Your task to perform on an android device: Set the phone to "Do not disturb". Image 0: 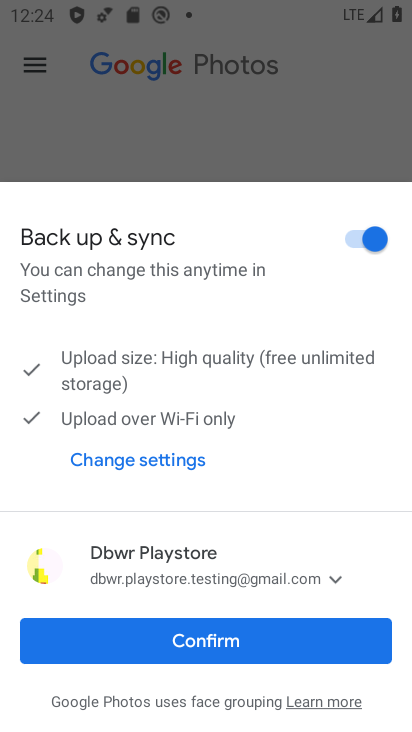
Step 0: press home button
Your task to perform on an android device: Set the phone to "Do not disturb". Image 1: 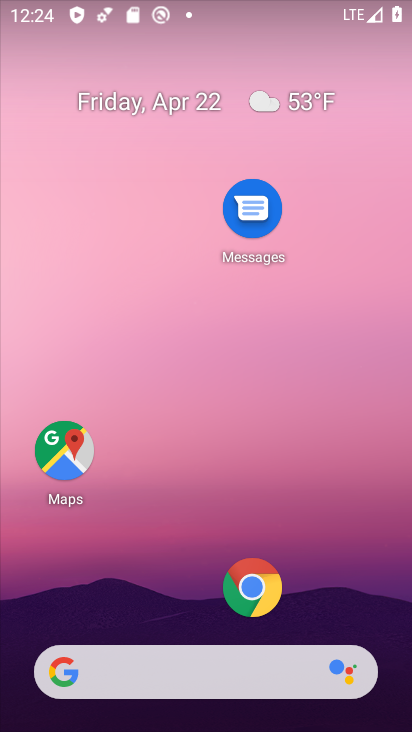
Step 1: drag from (183, 1) to (102, 502)
Your task to perform on an android device: Set the phone to "Do not disturb". Image 2: 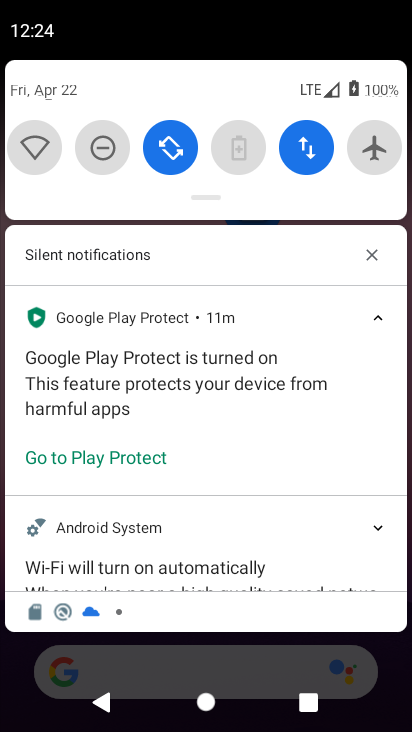
Step 2: click (99, 155)
Your task to perform on an android device: Set the phone to "Do not disturb". Image 3: 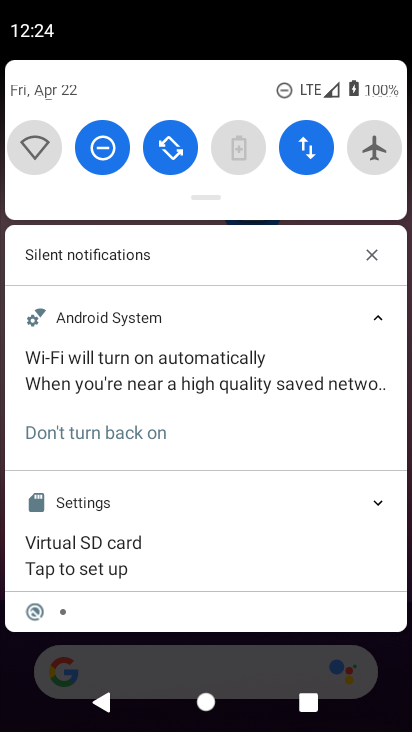
Step 3: task complete